Your task to perform on an android device: open app "Duolingo: language lessons" (install if not already installed), go to login, and select forgot password Image 0: 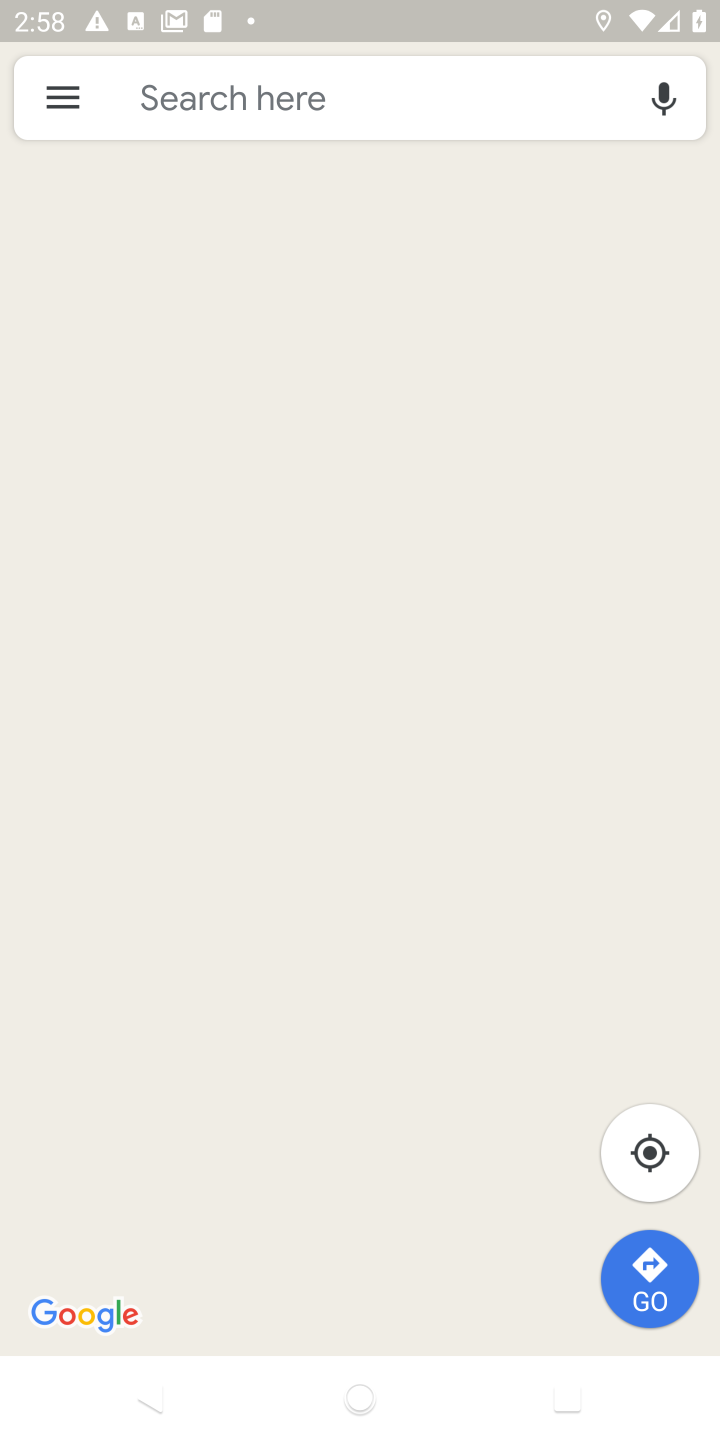
Step 0: press home button
Your task to perform on an android device: open app "Duolingo: language lessons" (install if not already installed), go to login, and select forgot password Image 1: 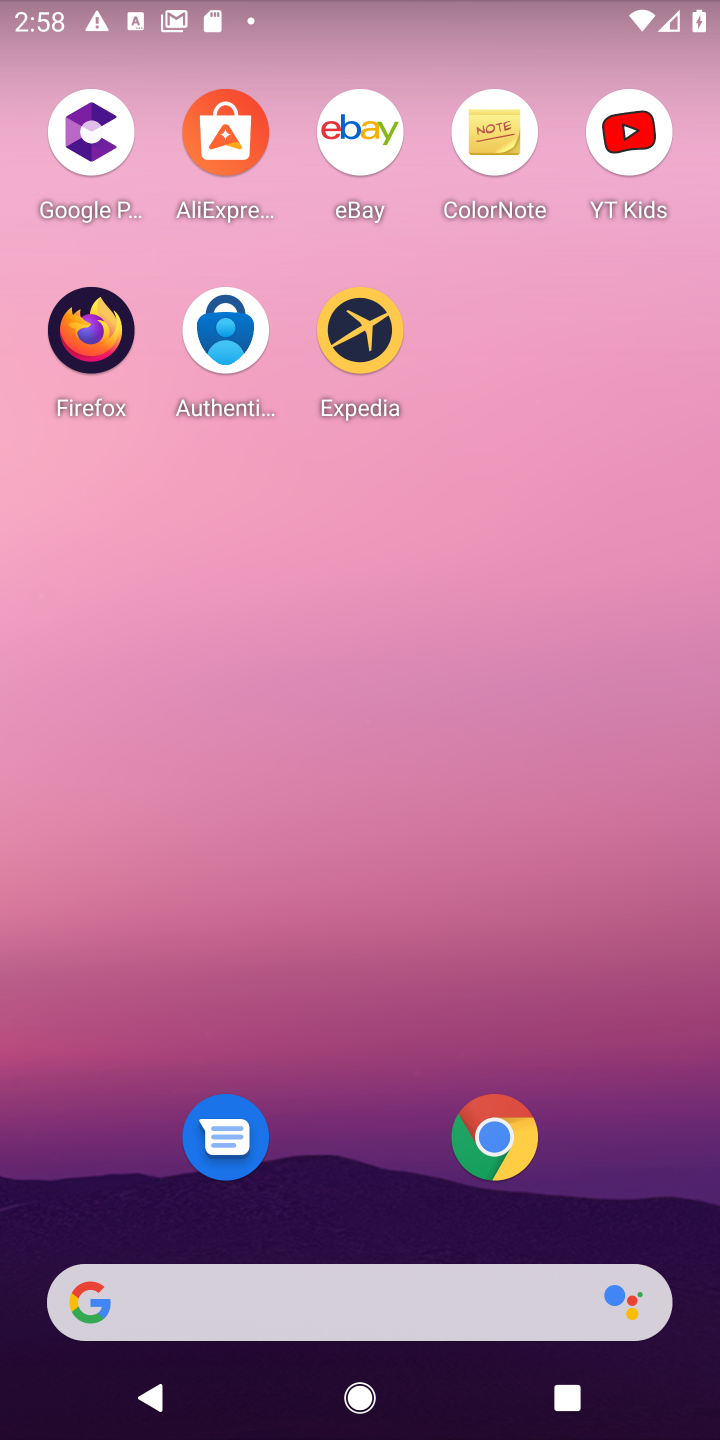
Step 1: drag from (361, 1193) to (377, 305)
Your task to perform on an android device: open app "Duolingo: language lessons" (install if not already installed), go to login, and select forgot password Image 2: 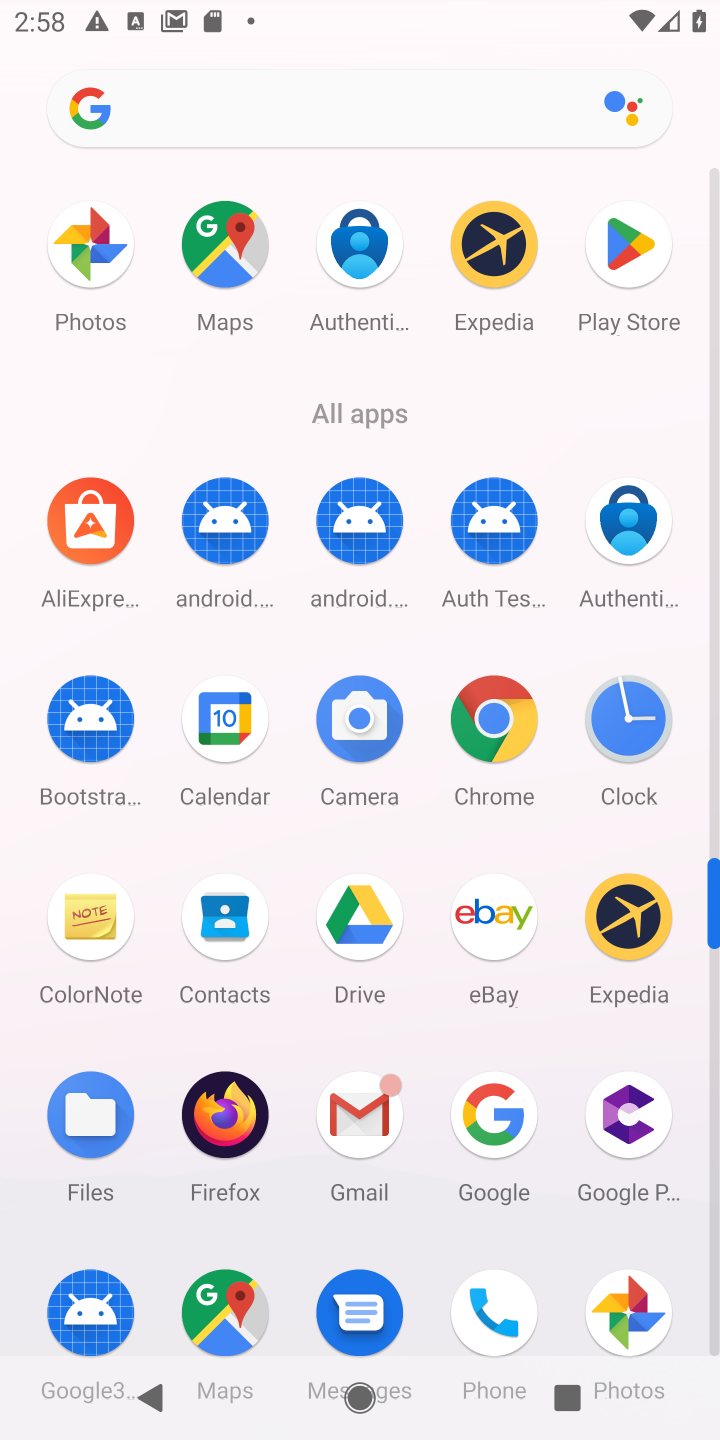
Step 2: click (614, 265)
Your task to perform on an android device: open app "Duolingo: language lessons" (install if not already installed), go to login, and select forgot password Image 3: 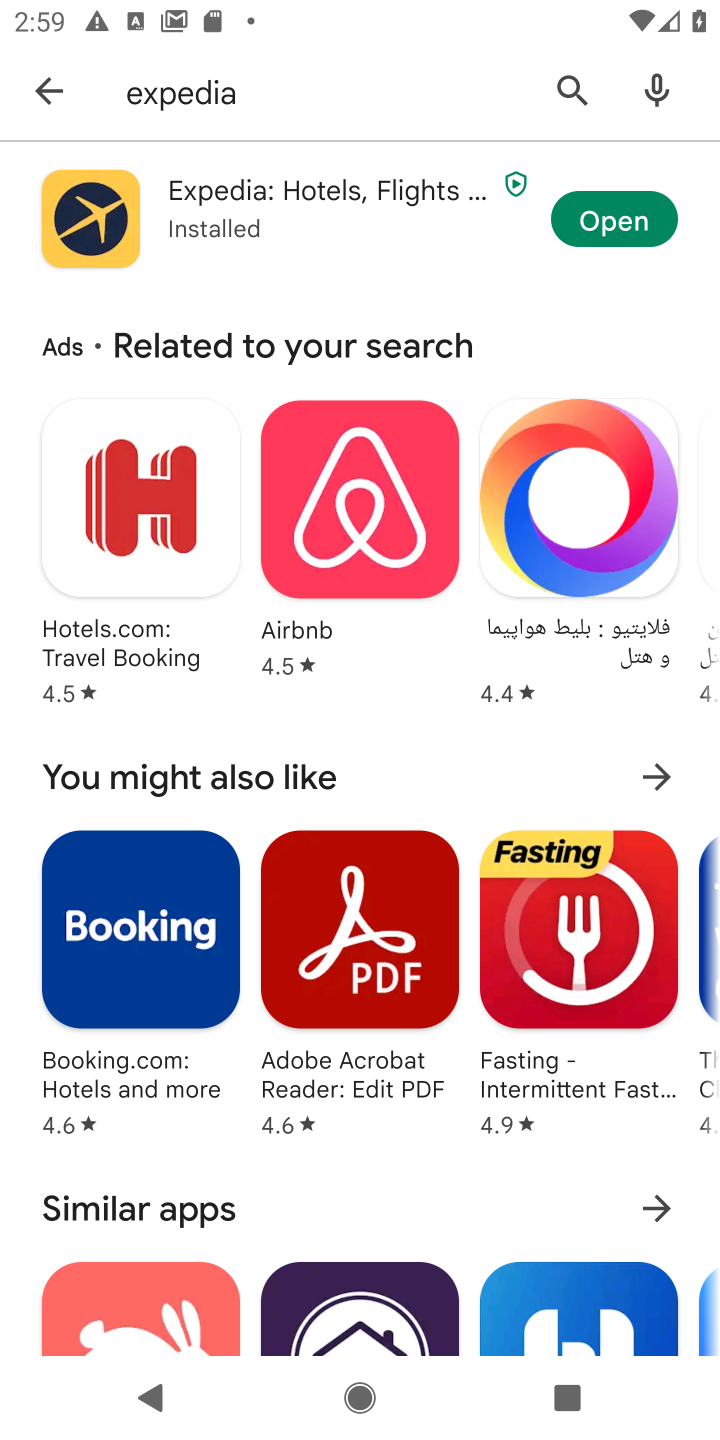
Step 3: click (291, 73)
Your task to perform on an android device: open app "Duolingo: language lessons" (install if not already installed), go to login, and select forgot password Image 4: 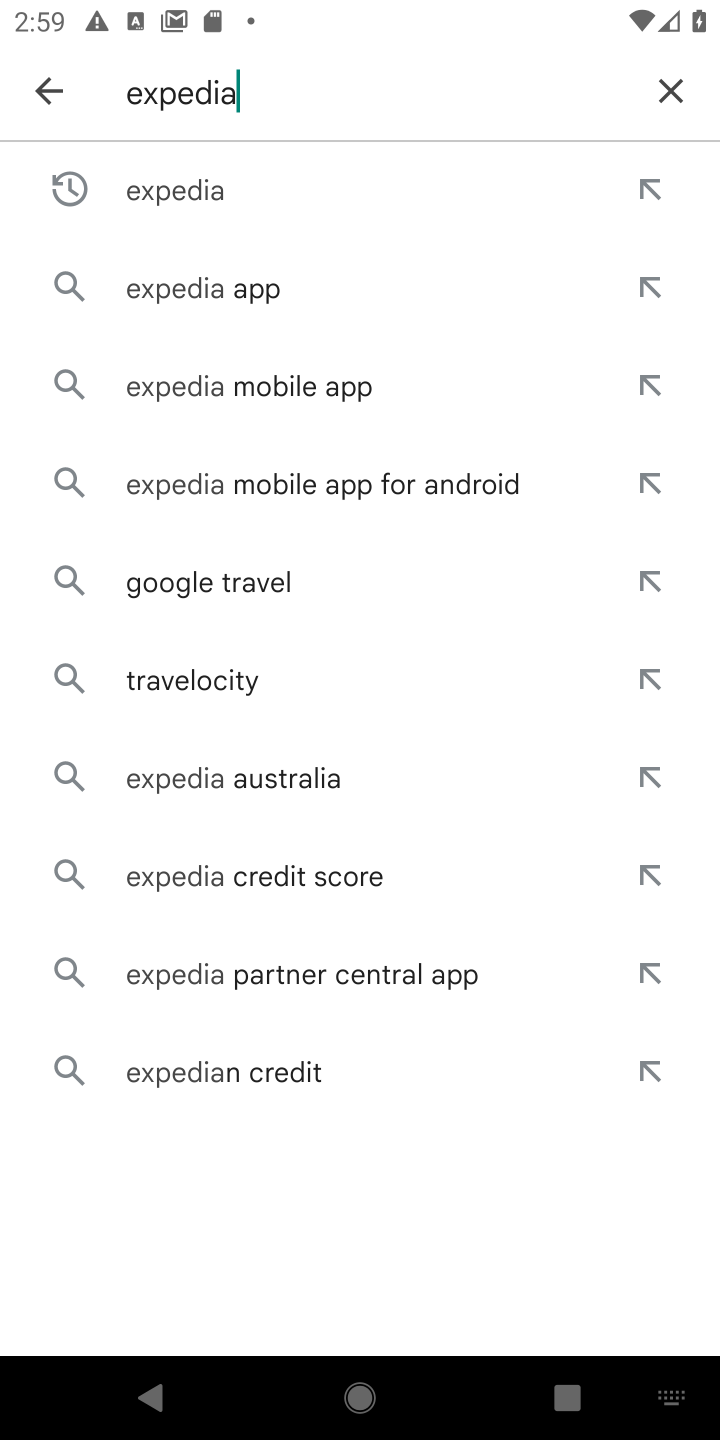
Step 4: click (658, 66)
Your task to perform on an android device: open app "Duolingo: language lessons" (install if not already installed), go to login, and select forgot password Image 5: 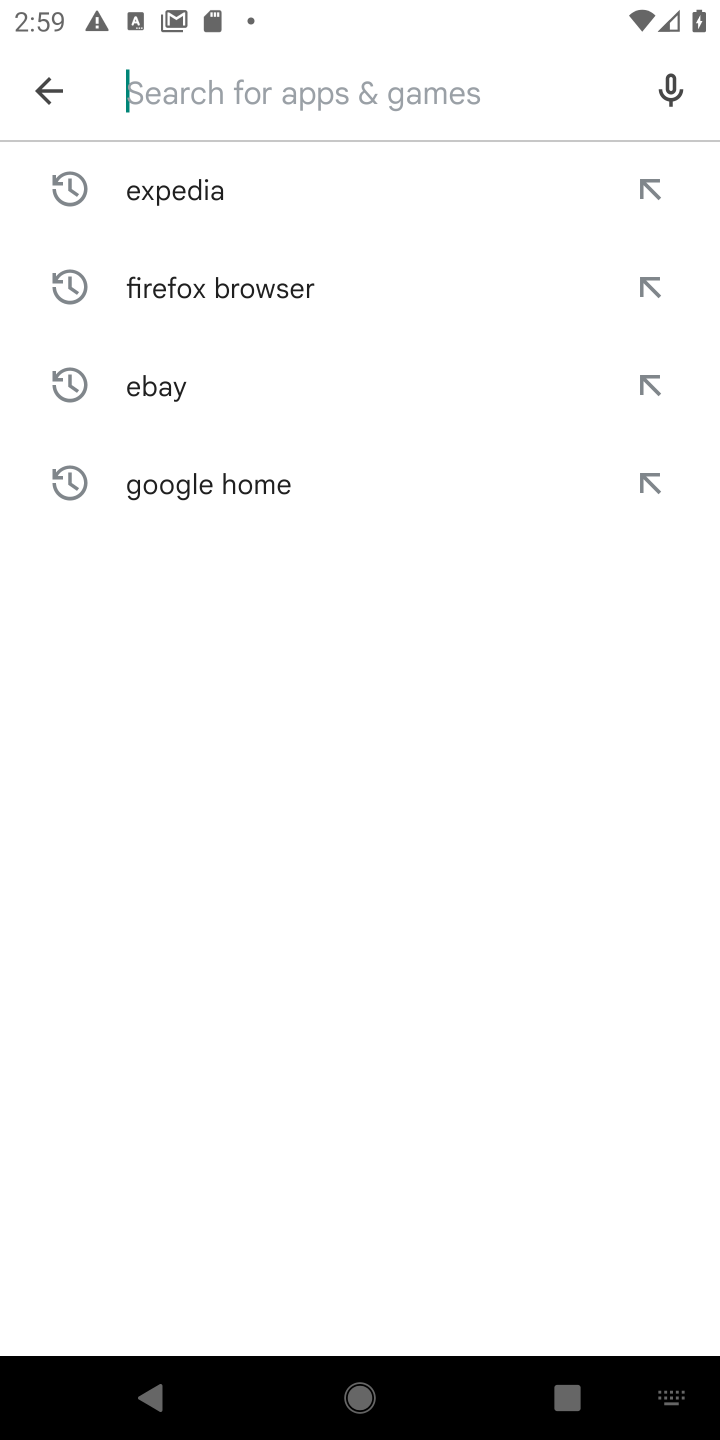
Step 5: type "duolingo"
Your task to perform on an android device: open app "Duolingo: language lessons" (install if not already installed), go to login, and select forgot password Image 6: 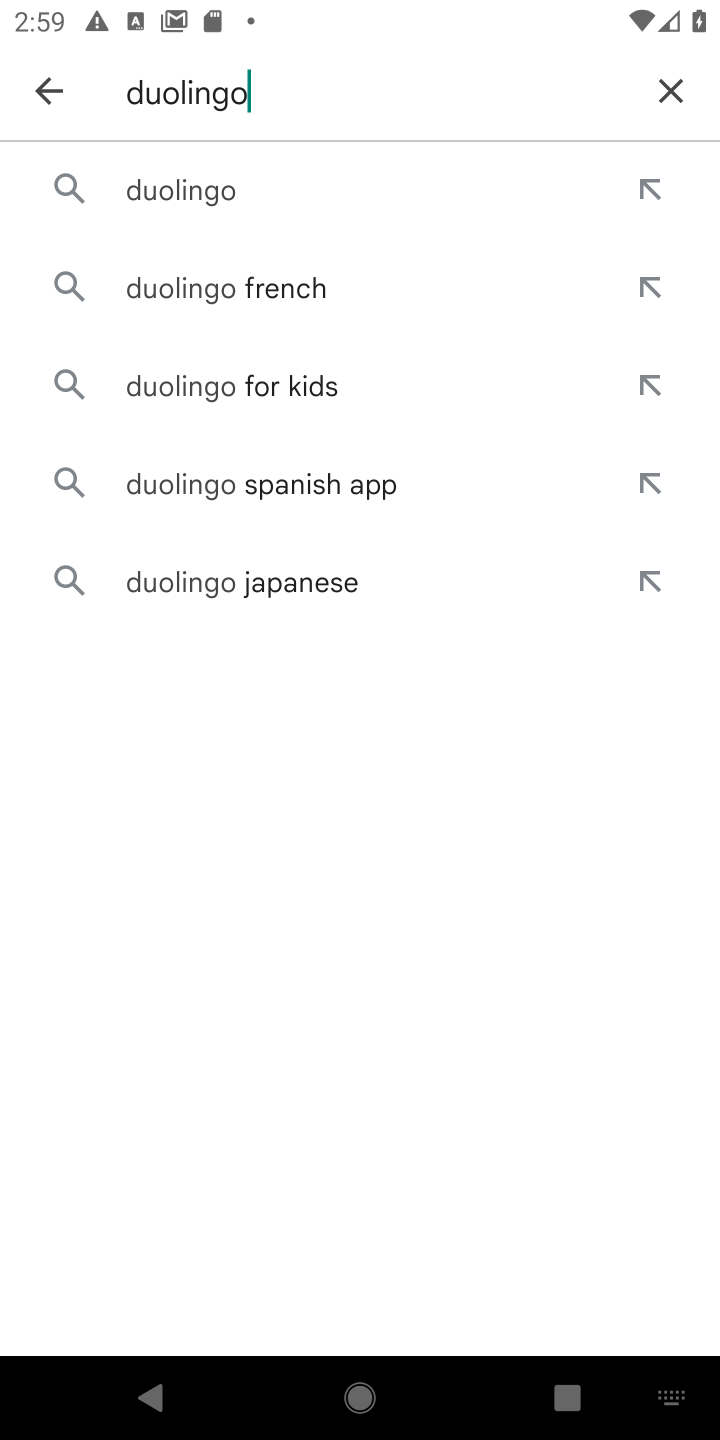
Step 6: click (167, 189)
Your task to perform on an android device: open app "Duolingo: language lessons" (install if not already installed), go to login, and select forgot password Image 7: 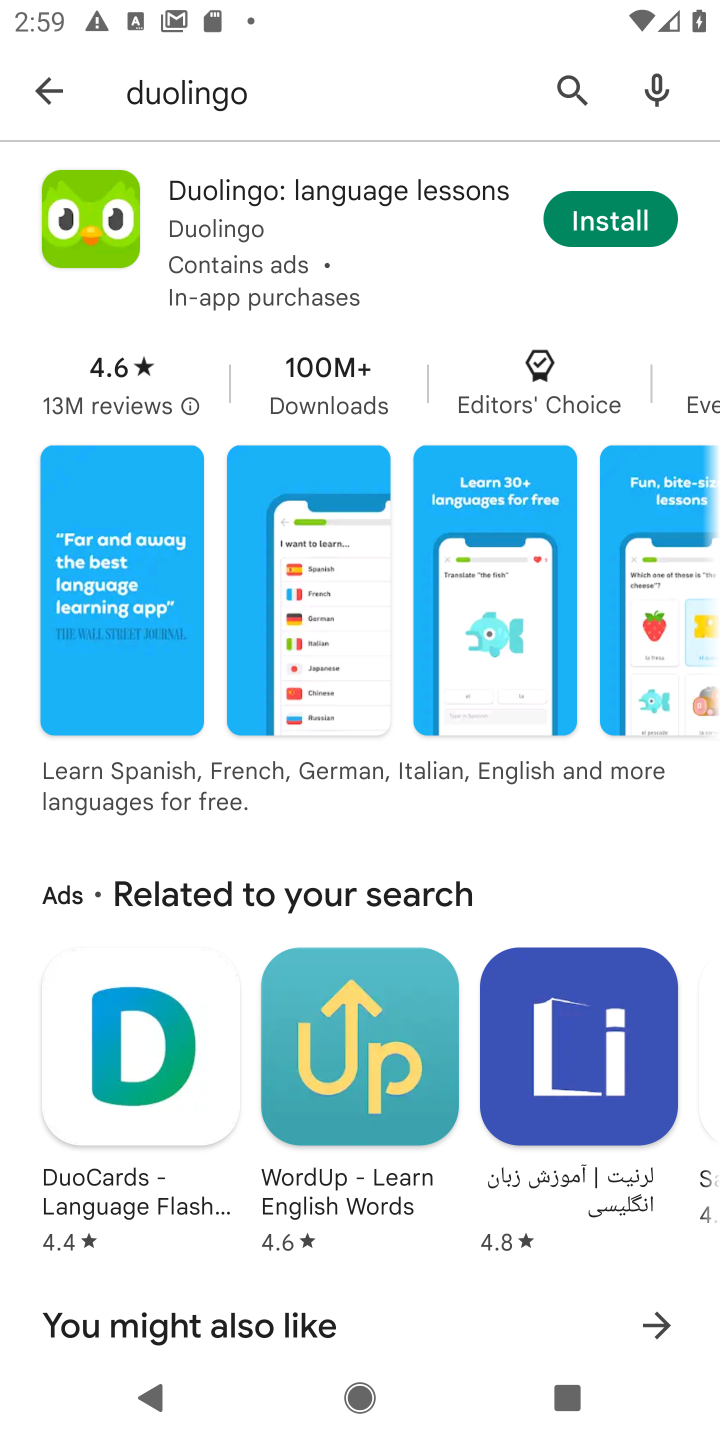
Step 7: click (619, 219)
Your task to perform on an android device: open app "Duolingo: language lessons" (install if not already installed), go to login, and select forgot password Image 8: 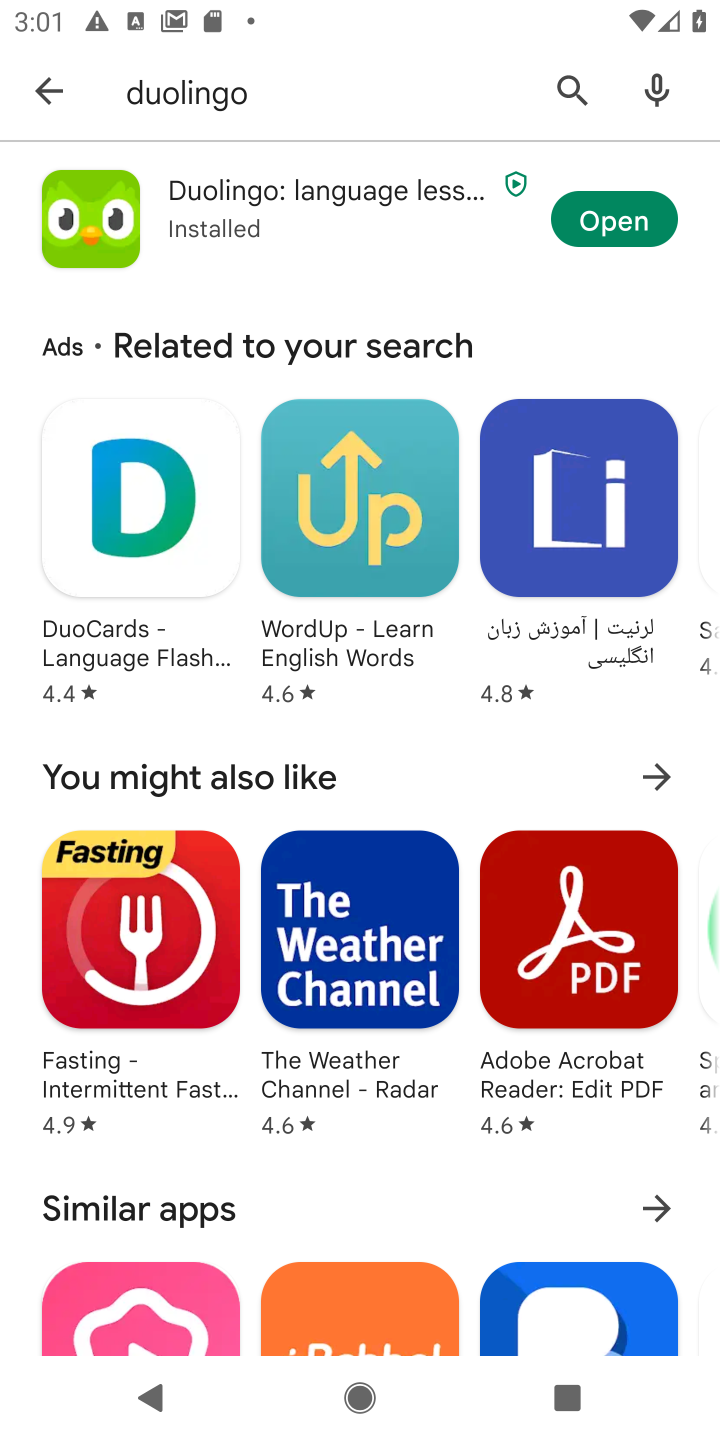
Step 8: click (619, 228)
Your task to perform on an android device: open app "Duolingo: language lessons" (install if not already installed), go to login, and select forgot password Image 9: 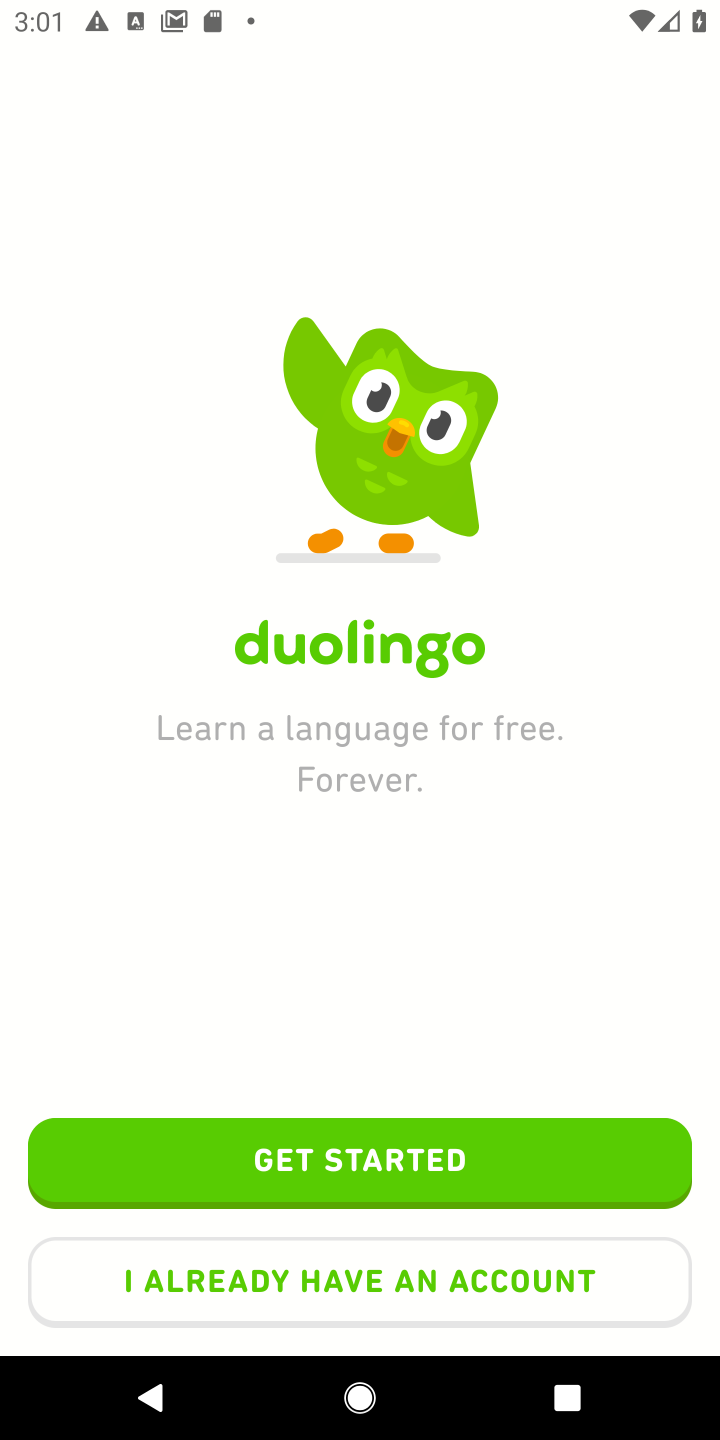
Step 9: click (405, 1152)
Your task to perform on an android device: open app "Duolingo: language lessons" (install if not already installed), go to login, and select forgot password Image 10: 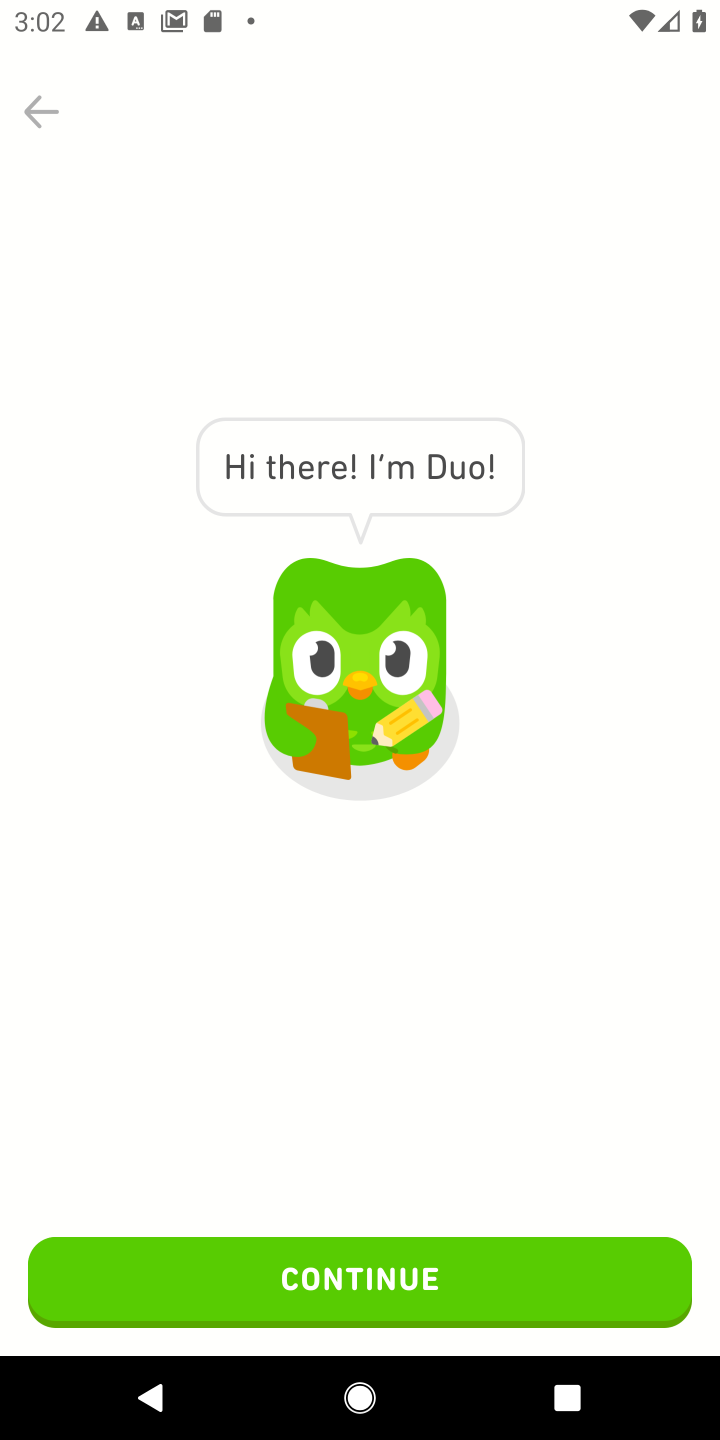
Step 10: click (380, 1268)
Your task to perform on an android device: open app "Duolingo: language lessons" (install if not already installed), go to login, and select forgot password Image 11: 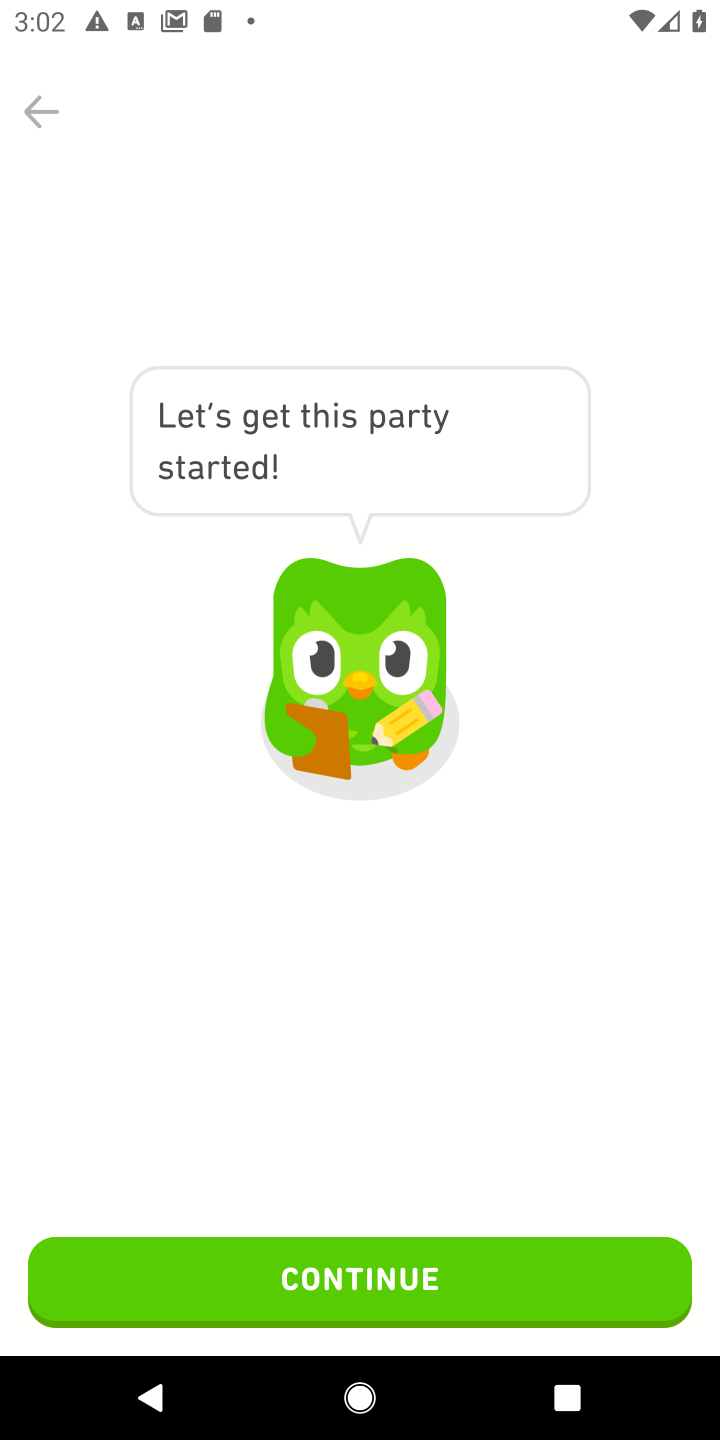
Step 11: click (378, 1268)
Your task to perform on an android device: open app "Duolingo: language lessons" (install if not already installed), go to login, and select forgot password Image 12: 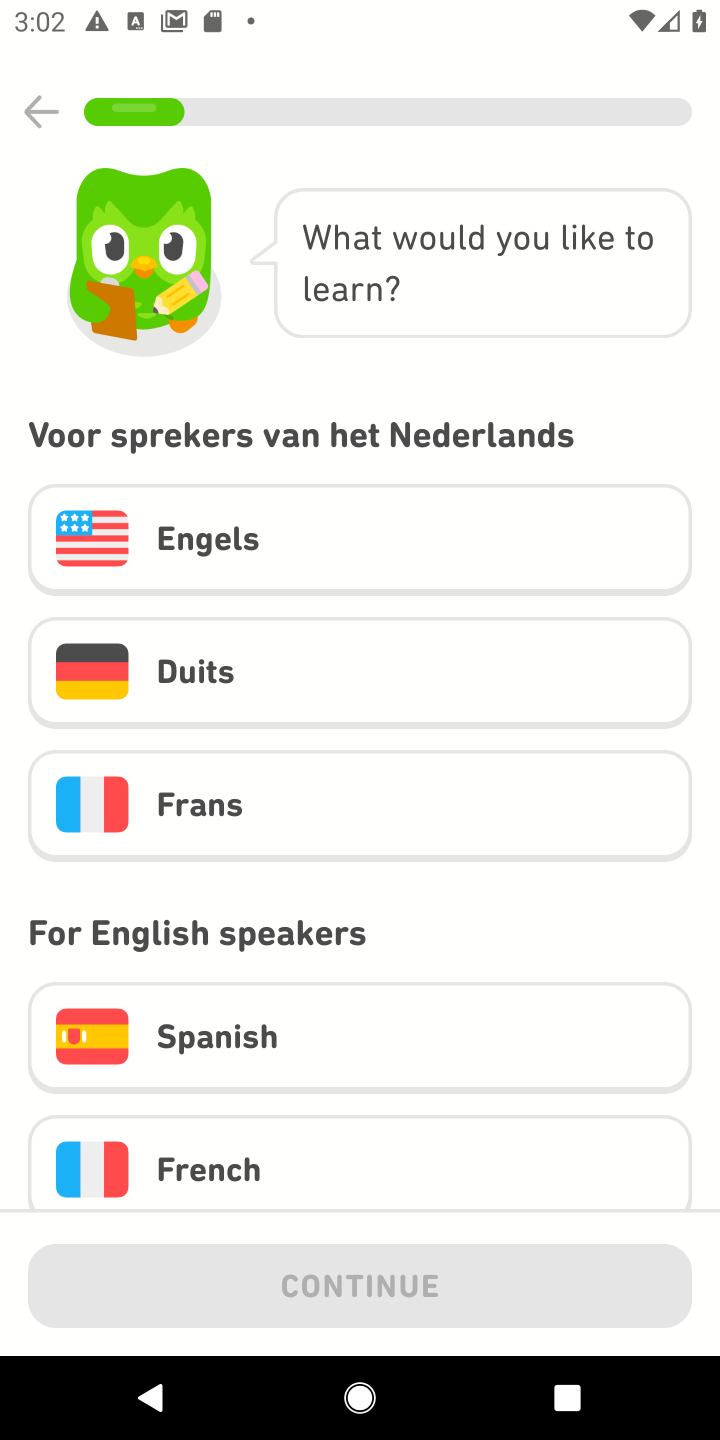
Step 12: click (301, 535)
Your task to perform on an android device: open app "Duolingo: language lessons" (install if not already installed), go to login, and select forgot password Image 13: 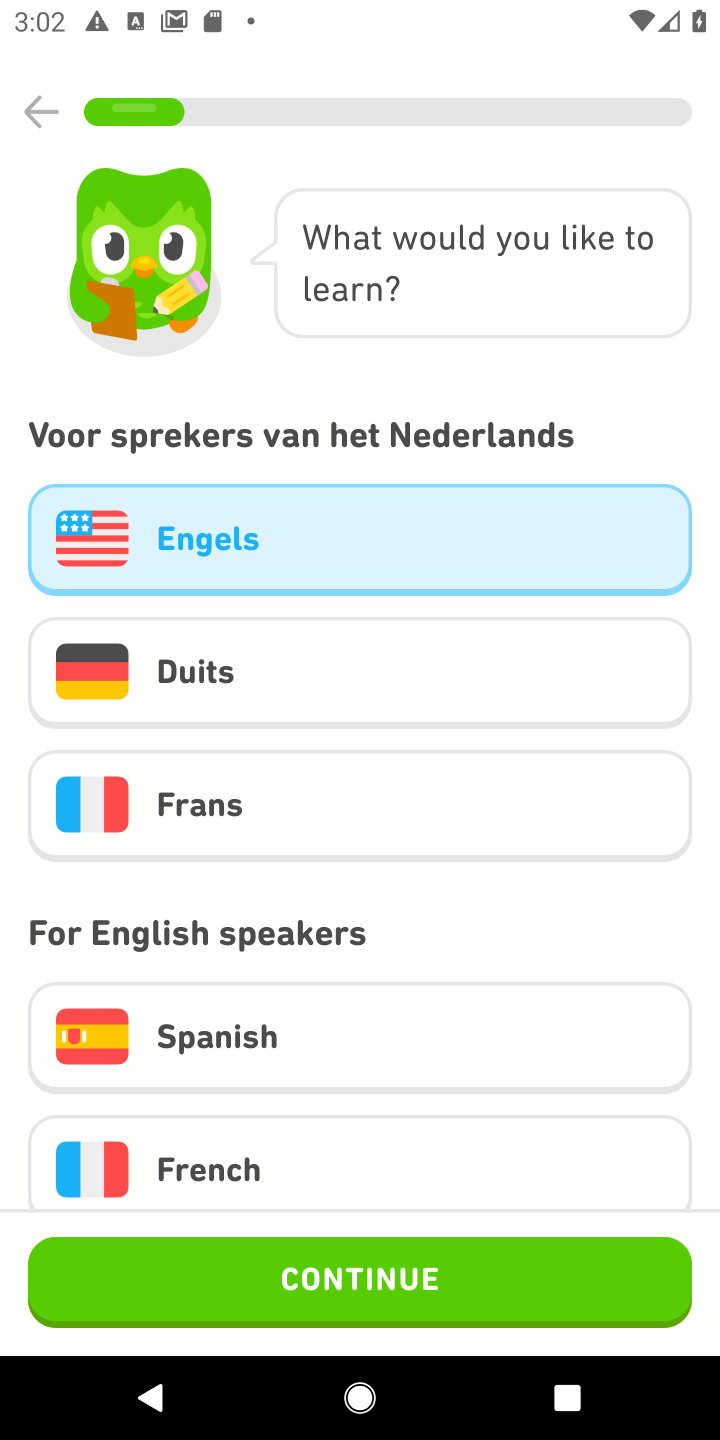
Step 13: click (374, 1289)
Your task to perform on an android device: open app "Duolingo: language lessons" (install if not already installed), go to login, and select forgot password Image 14: 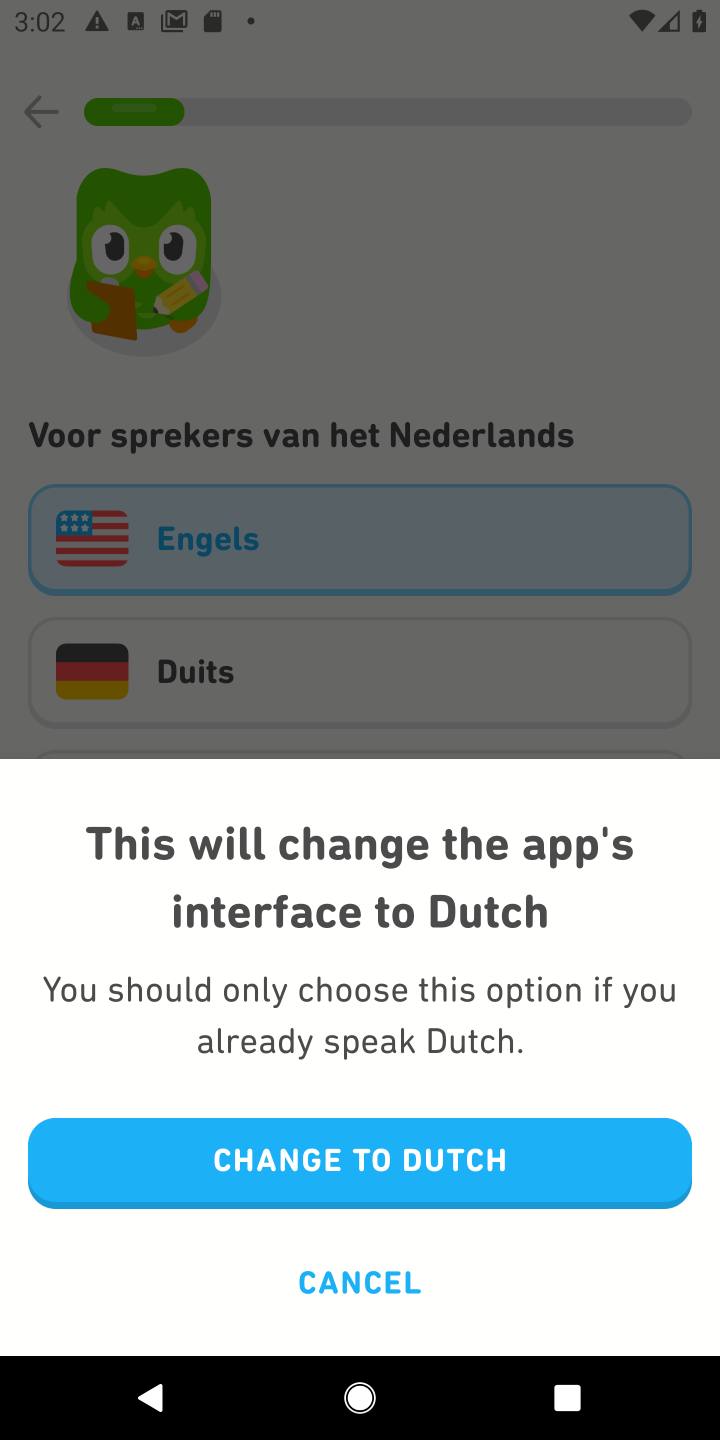
Step 14: click (391, 1274)
Your task to perform on an android device: open app "Duolingo: language lessons" (install if not already installed), go to login, and select forgot password Image 15: 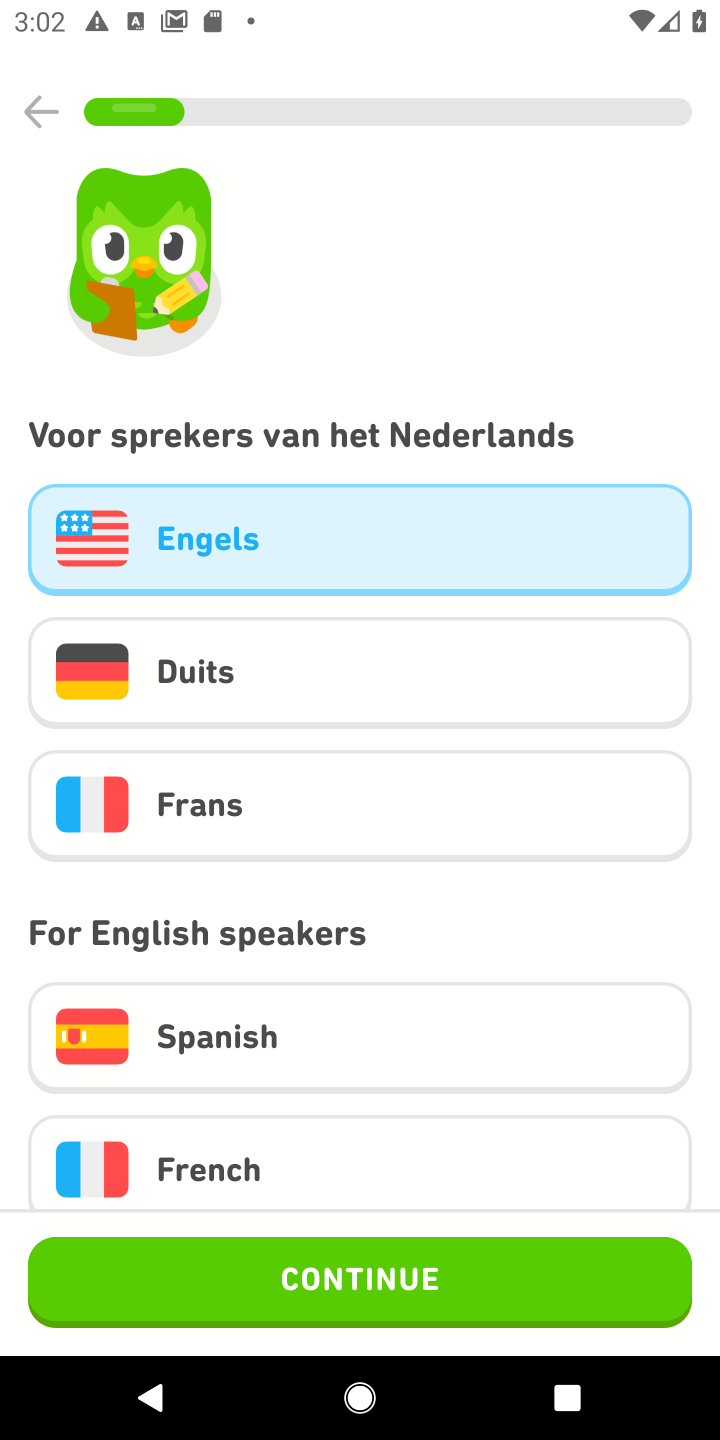
Step 15: task complete